Your task to perform on an android device: change the clock style Image 0: 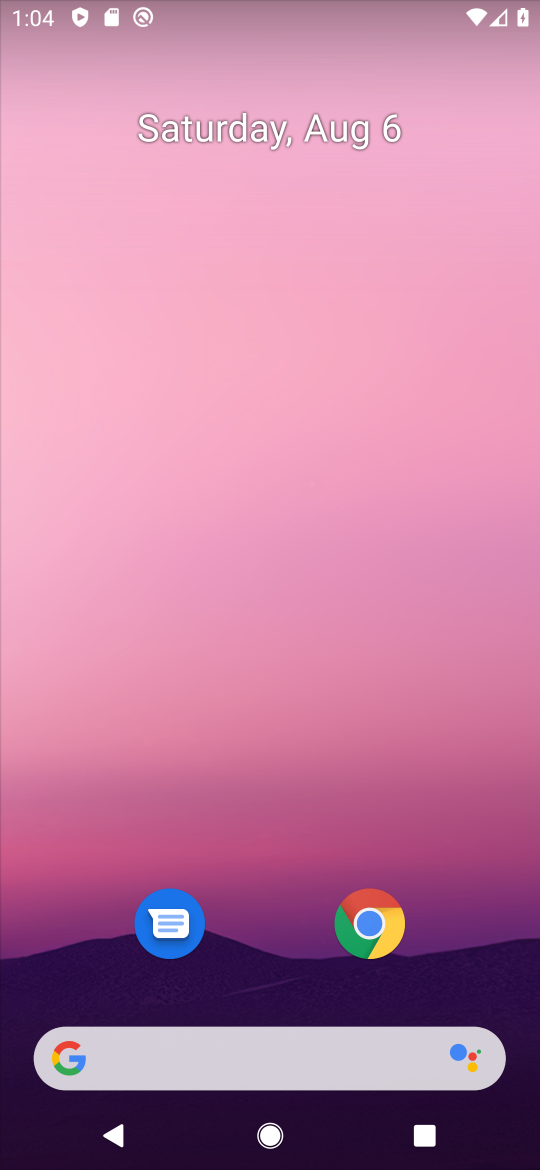
Step 0: drag from (263, 1004) to (57, 33)
Your task to perform on an android device: change the clock style Image 1: 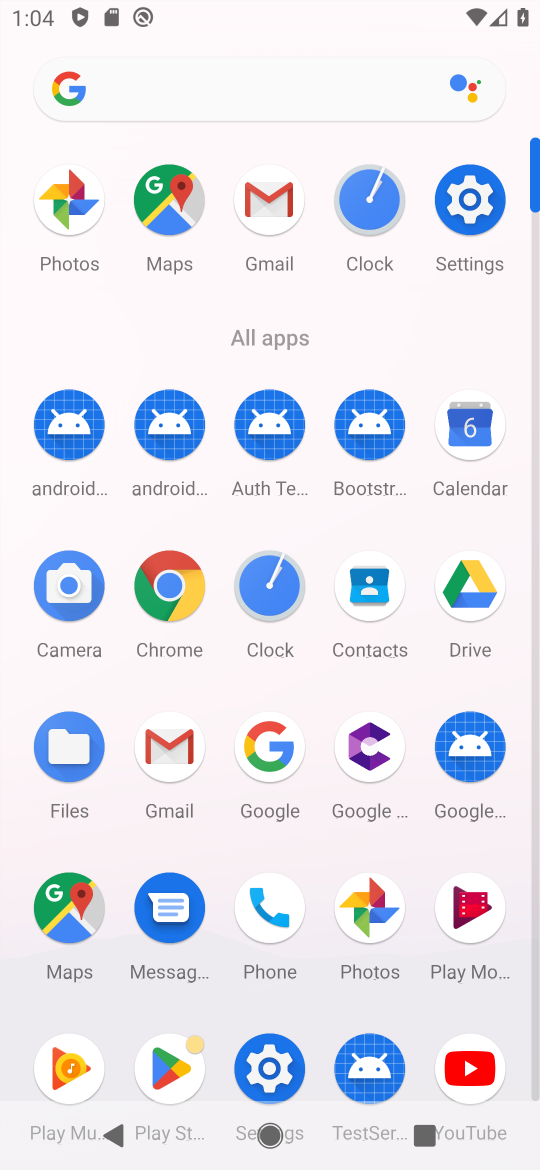
Step 1: click (375, 187)
Your task to perform on an android device: change the clock style Image 2: 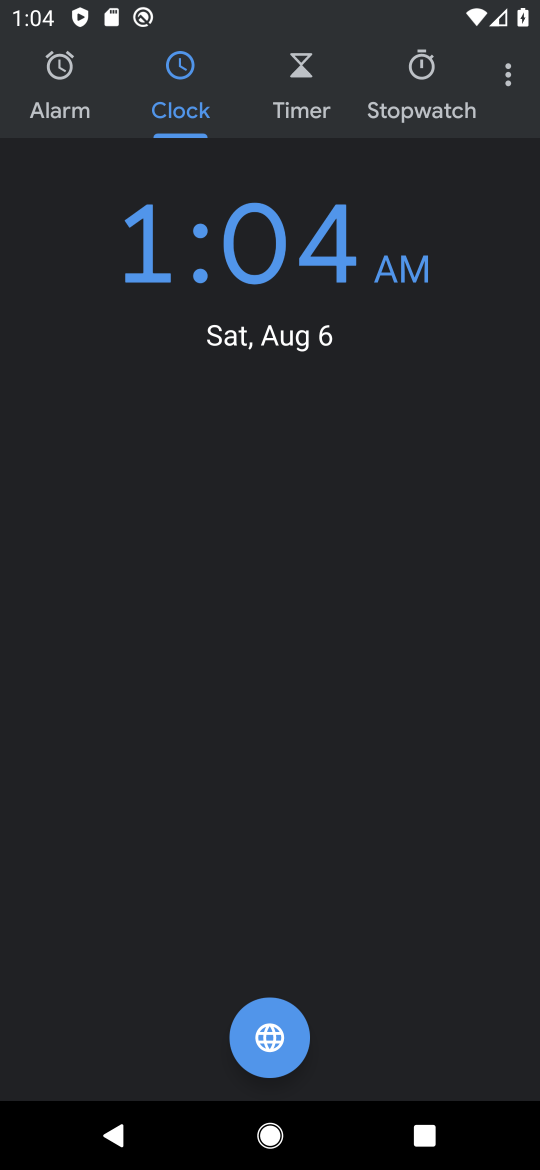
Step 2: drag from (507, 86) to (500, 165)
Your task to perform on an android device: change the clock style Image 3: 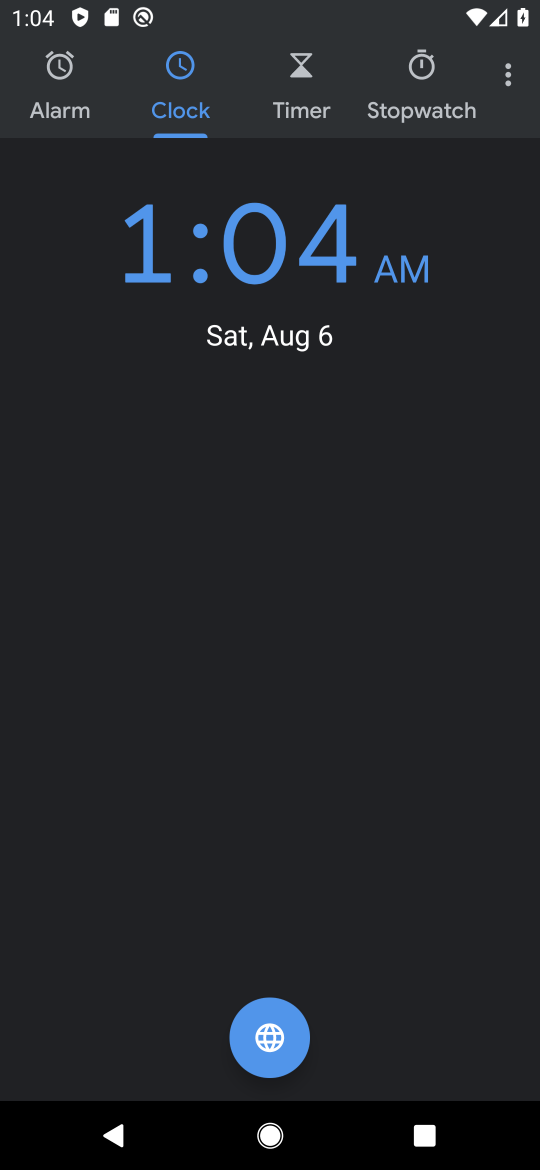
Step 3: click (509, 82)
Your task to perform on an android device: change the clock style Image 4: 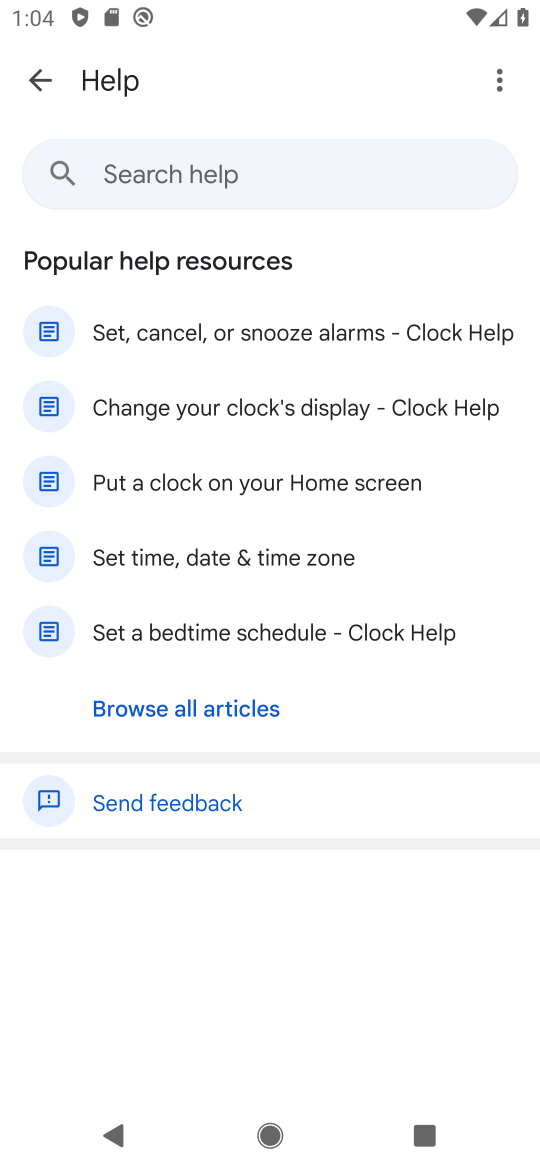
Step 4: click (37, 68)
Your task to perform on an android device: change the clock style Image 5: 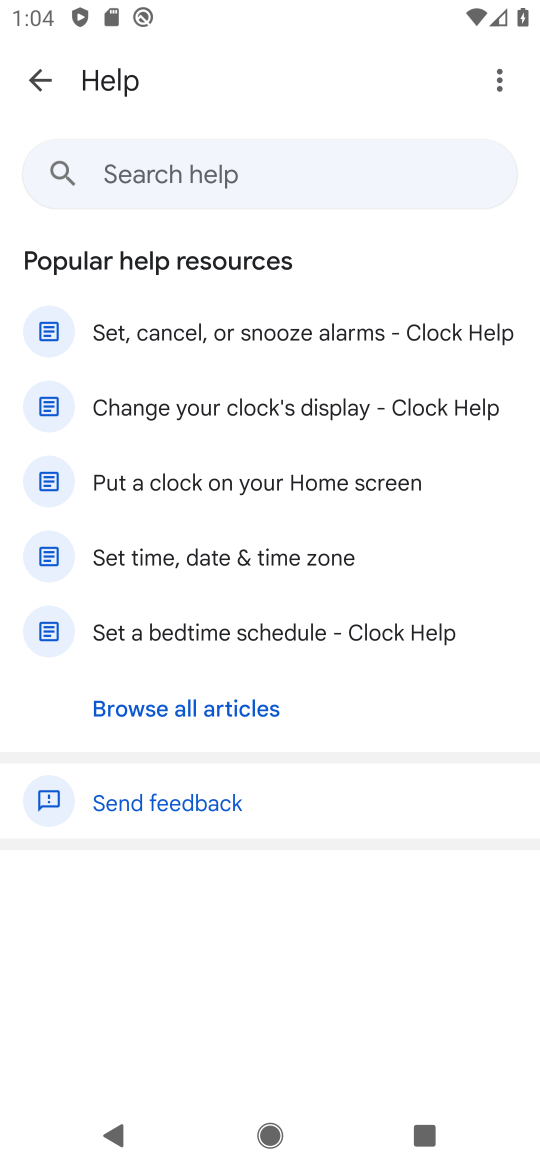
Step 5: press back button
Your task to perform on an android device: change the clock style Image 6: 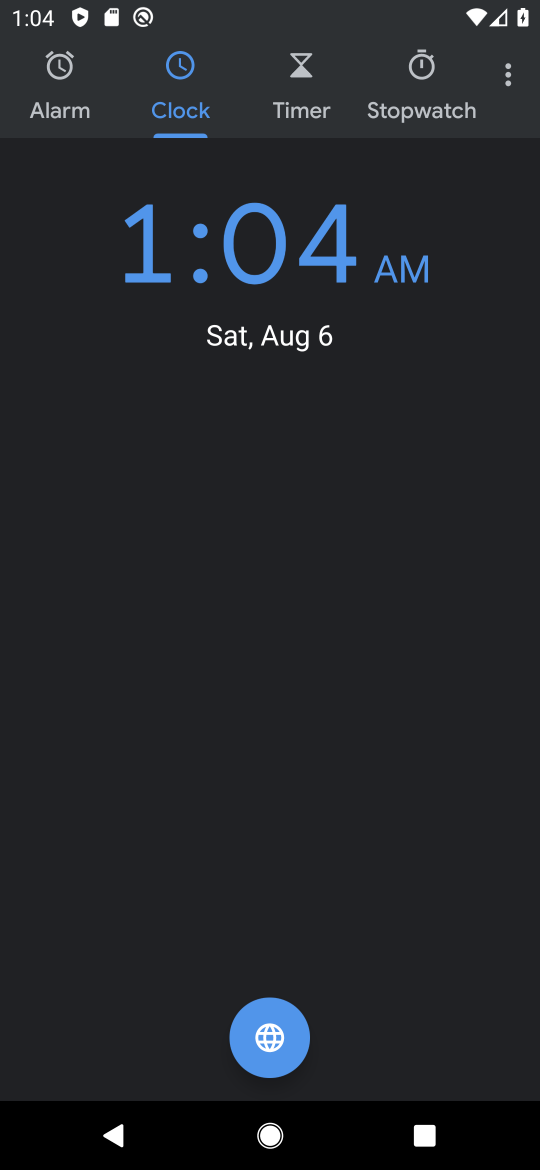
Step 6: click (514, 77)
Your task to perform on an android device: change the clock style Image 7: 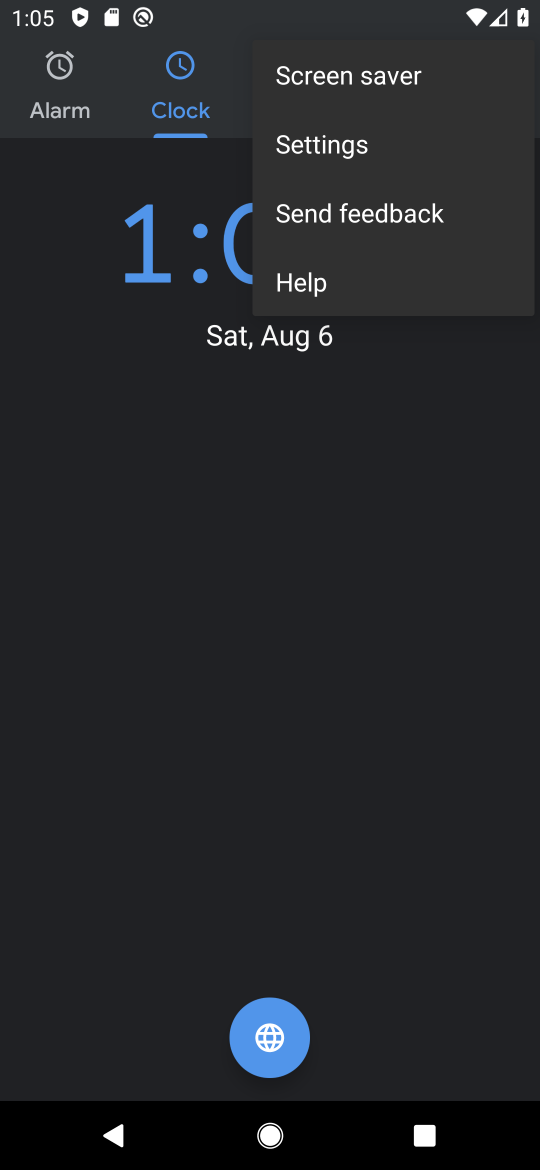
Step 7: click (355, 134)
Your task to perform on an android device: change the clock style Image 8: 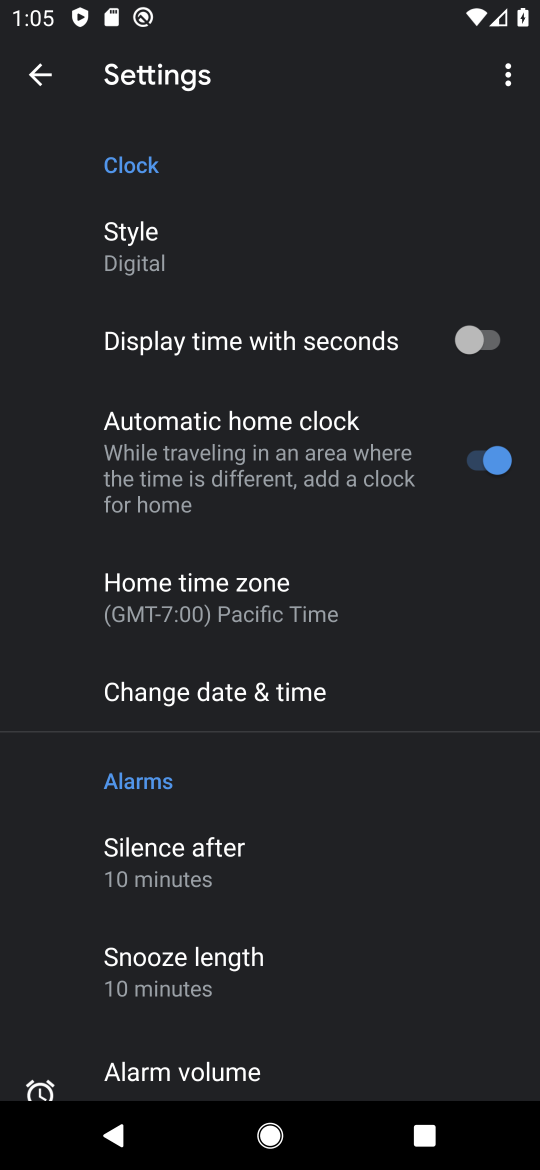
Step 8: click (156, 262)
Your task to perform on an android device: change the clock style Image 9: 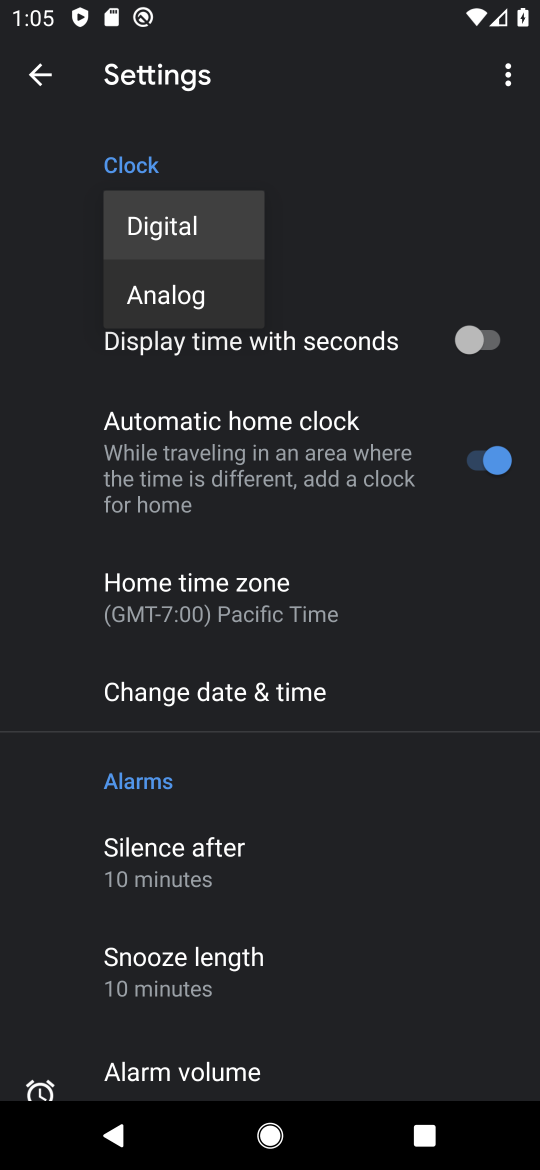
Step 9: click (179, 298)
Your task to perform on an android device: change the clock style Image 10: 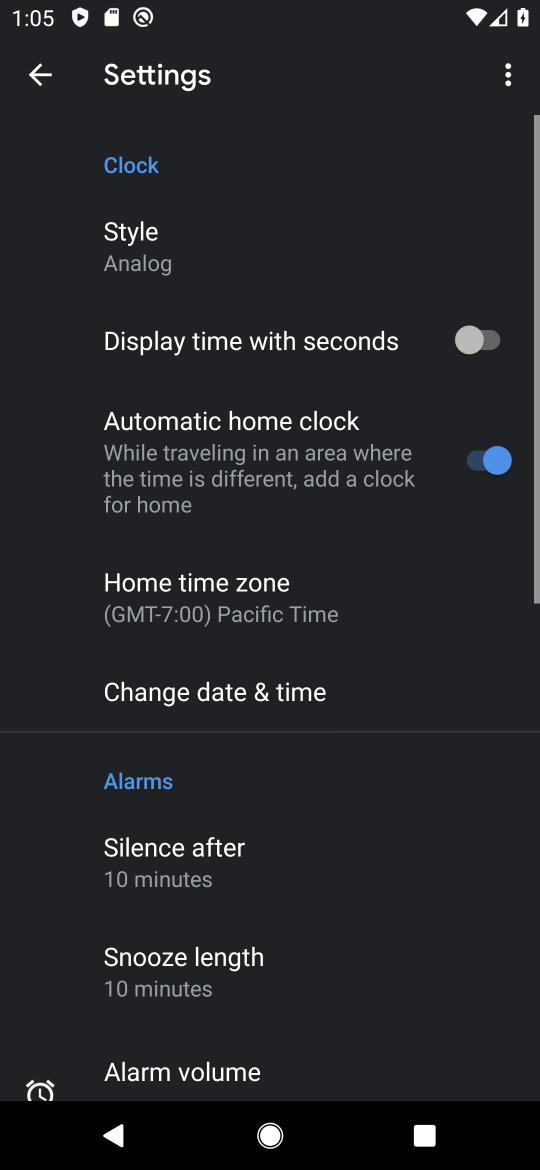
Step 10: task complete